Your task to perform on an android device: toggle wifi Image 0: 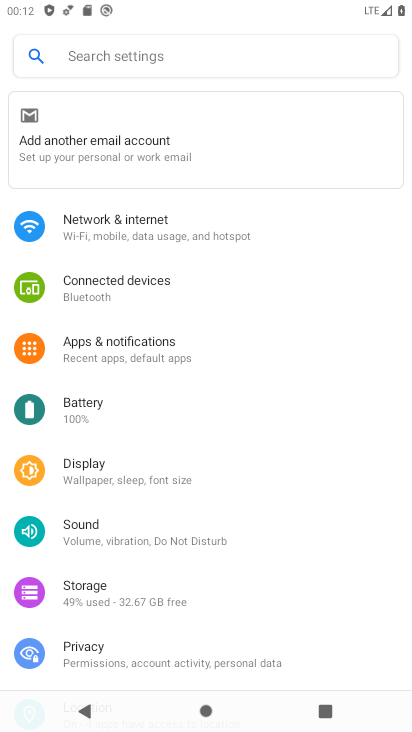
Step 0: drag from (139, 7) to (148, 543)
Your task to perform on an android device: toggle wifi Image 1: 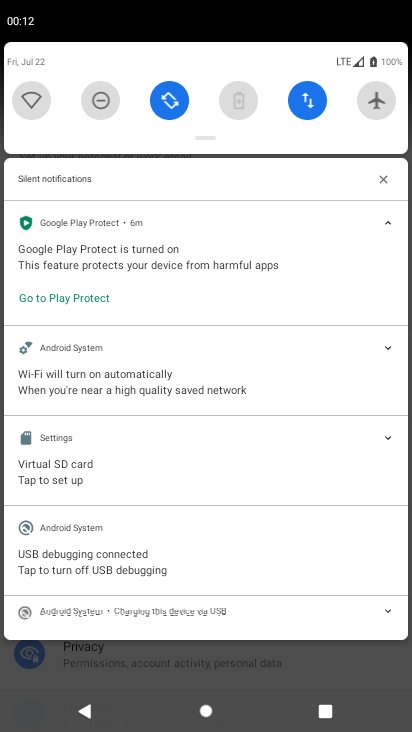
Step 1: click (22, 95)
Your task to perform on an android device: toggle wifi Image 2: 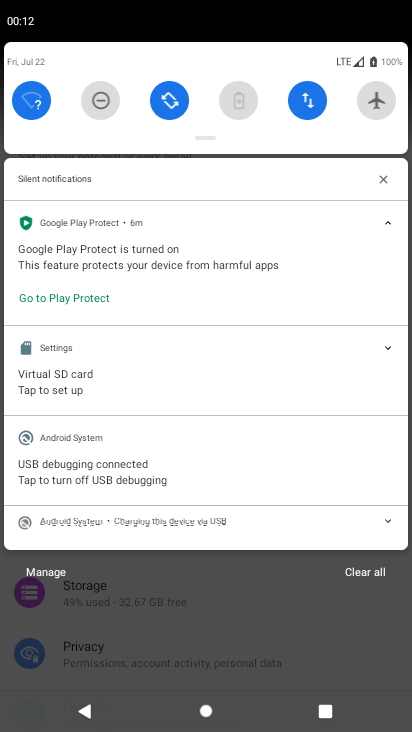
Step 2: task complete